Your task to perform on an android device: Go to battery settings Image 0: 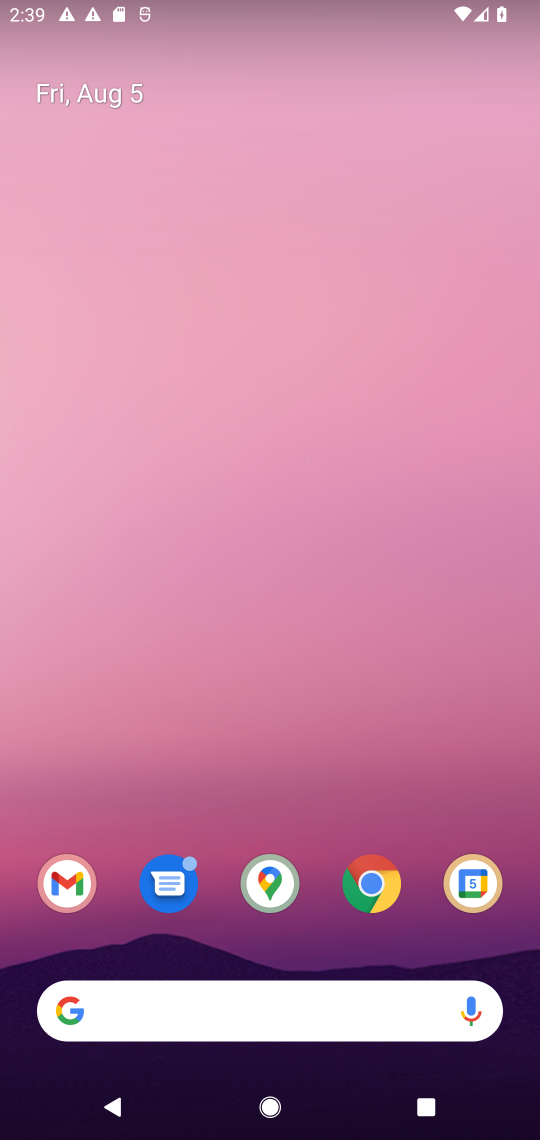
Step 0: press home button
Your task to perform on an android device: Go to battery settings Image 1: 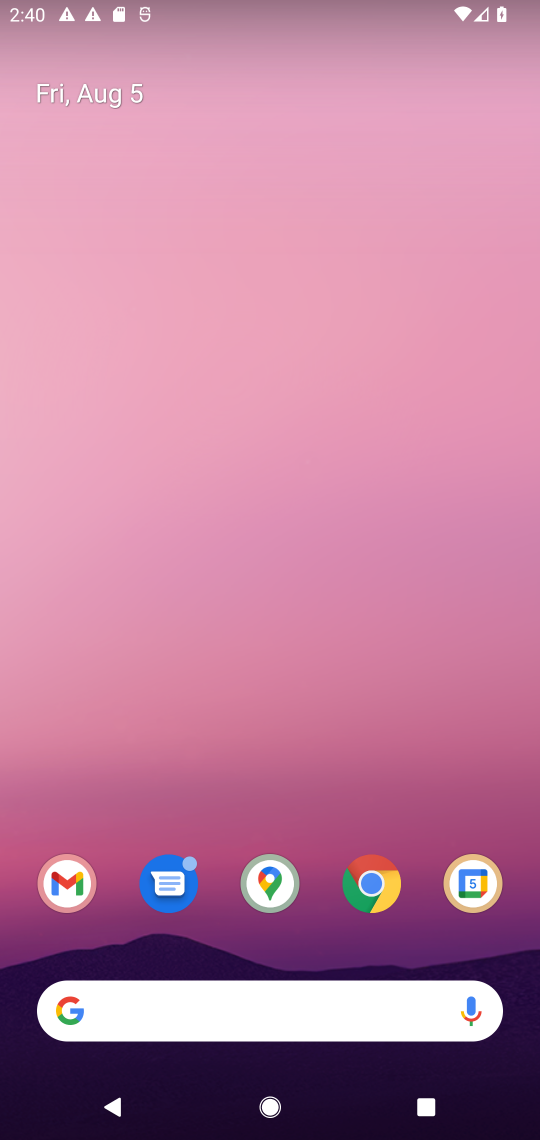
Step 1: drag from (320, 934) to (414, 8)
Your task to perform on an android device: Go to battery settings Image 2: 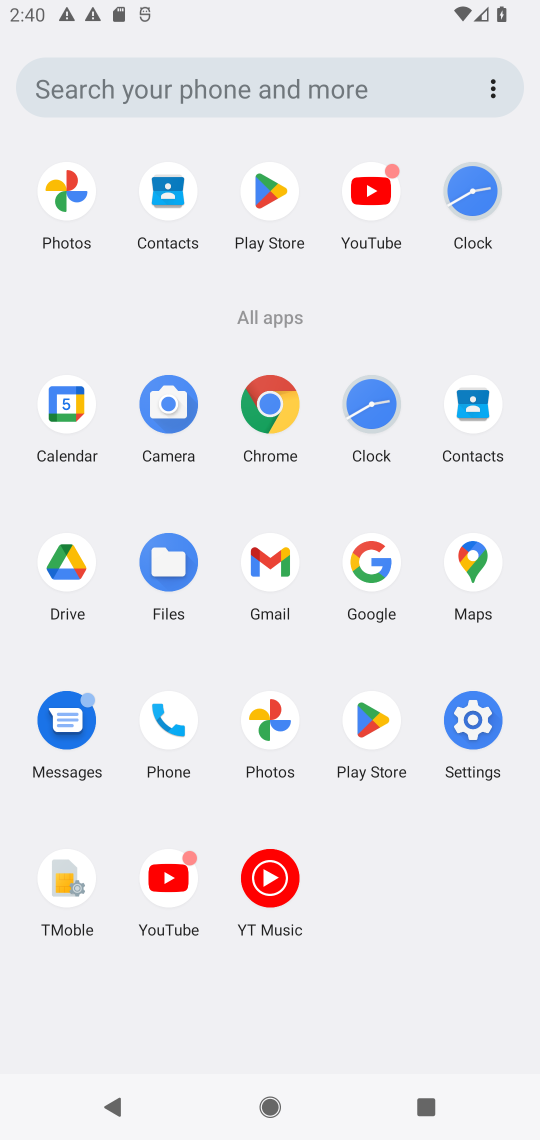
Step 2: click (464, 699)
Your task to perform on an android device: Go to battery settings Image 3: 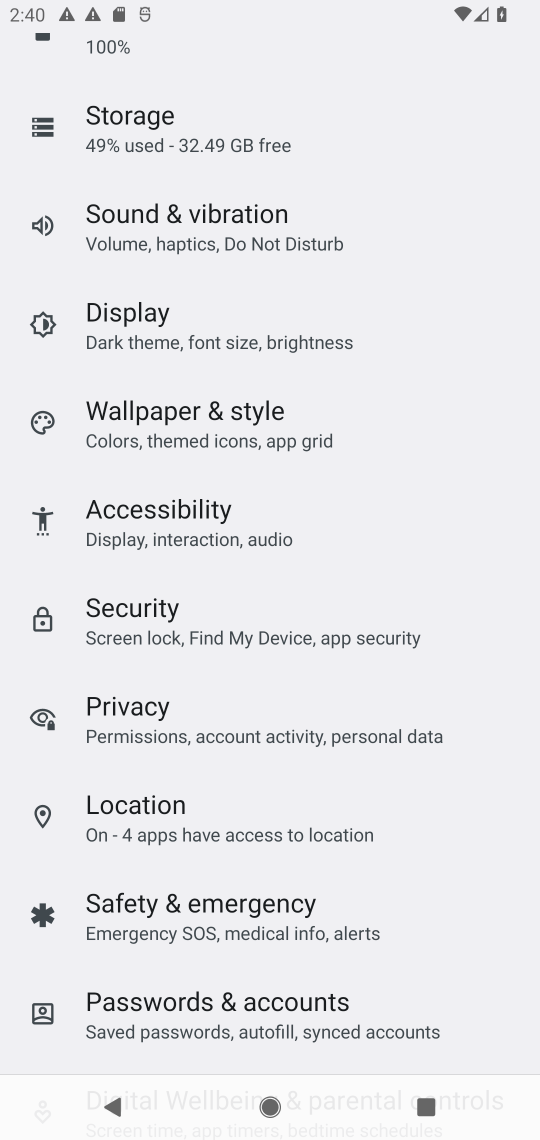
Step 3: drag from (187, 186) to (182, 1040)
Your task to perform on an android device: Go to battery settings Image 4: 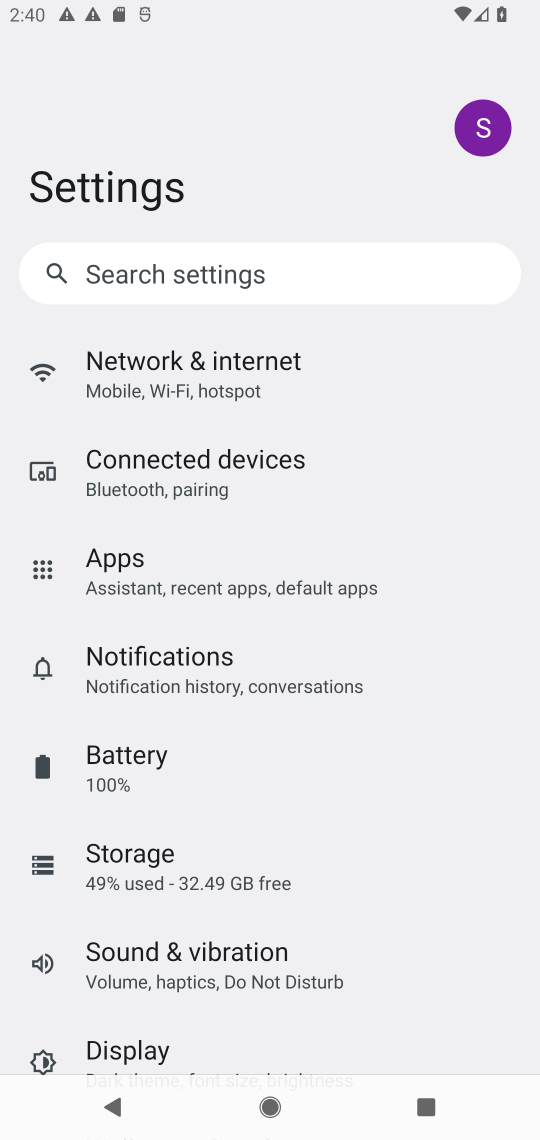
Step 4: click (183, 759)
Your task to perform on an android device: Go to battery settings Image 5: 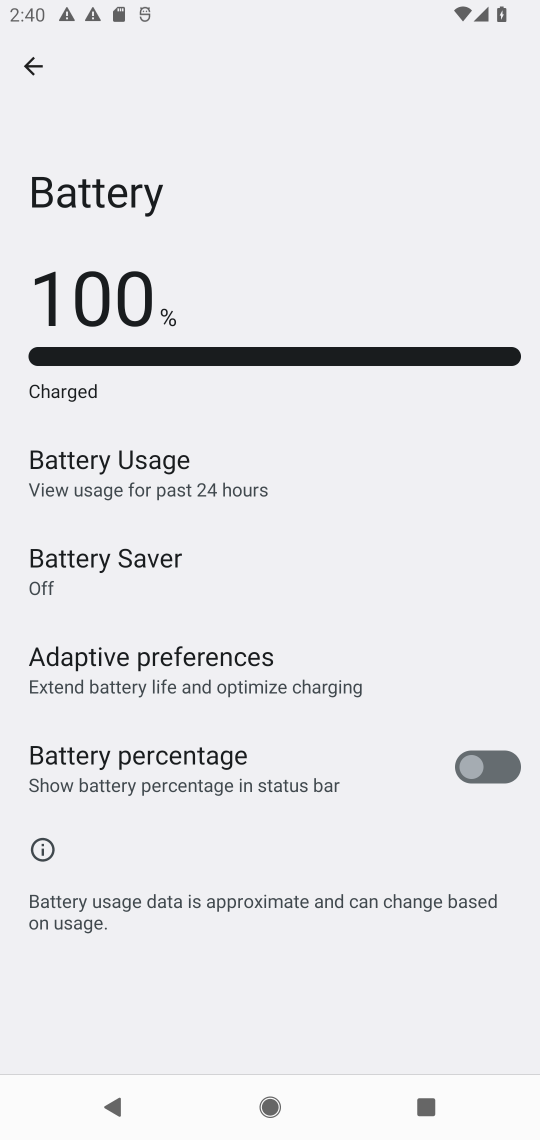
Step 5: task complete